Your task to perform on an android device: find snoozed emails in the gmail app Image 0: 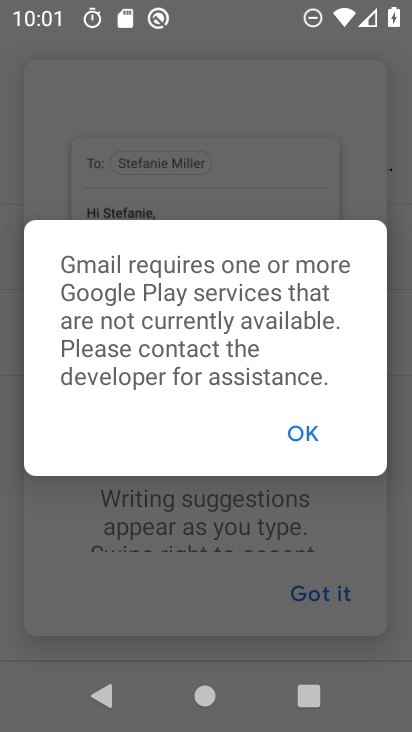
Step 0: press home button
Your task to perform on an android device: find snoozed emails in the gmail app Image 1: 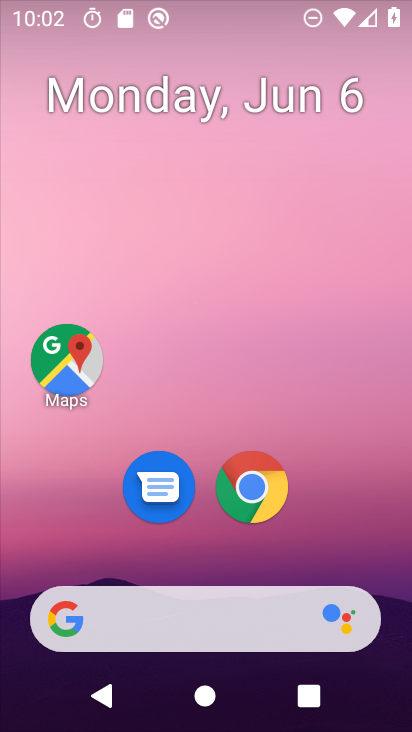
Step 1: drag from (394, 674) to (313, 23)
Your task to perform on an android device: find snoozed emails in the gmail app Image 2: 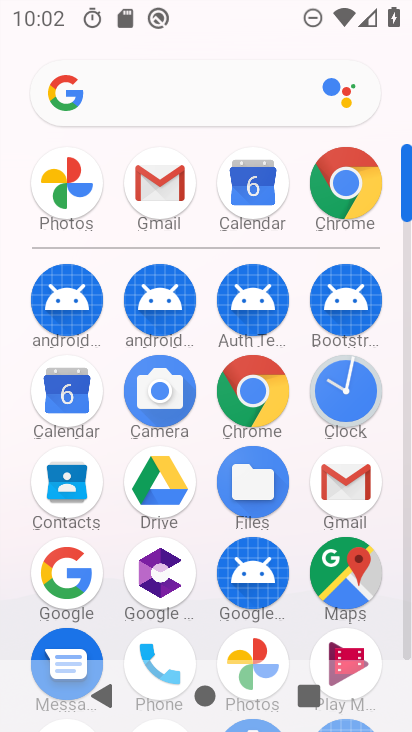
Step 2: click (323, 458)
Your task to perform on an android device: find snoozed emails in the gmail app Image 3: 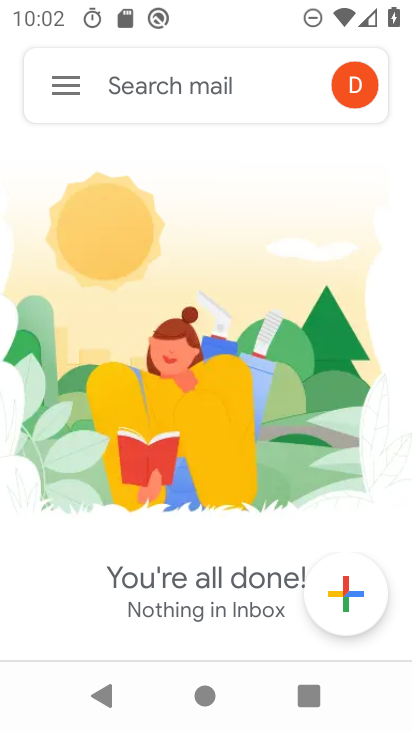
Step 3: click (64, 93)
Your task to perform on an android device: find snoozed emails in the gmail app Image 4: 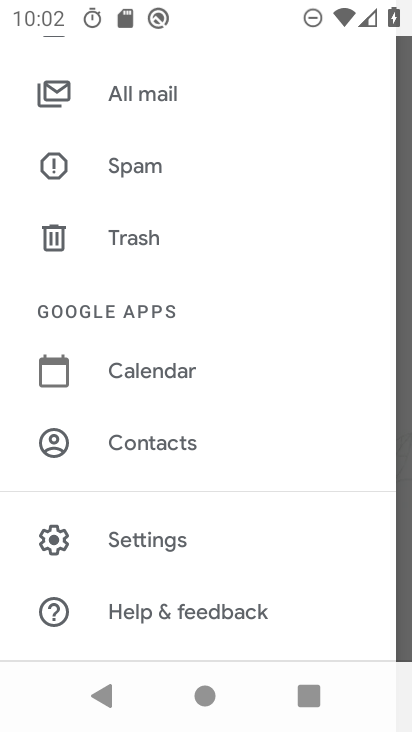
Step 4: drag from (149, 139) to (207, 599)
Your task to perform on an android device: find snoozed emails in the gmail app Image 5: 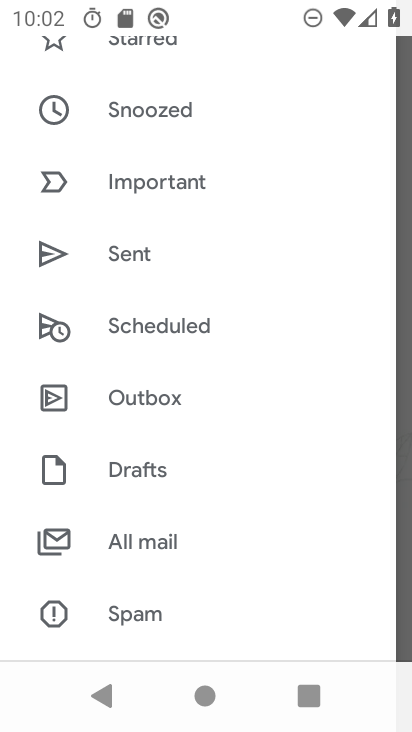
Step 5: click (182, 125)
Your task to perform on an android device: find snoozed emails in the gmail app Image 6: 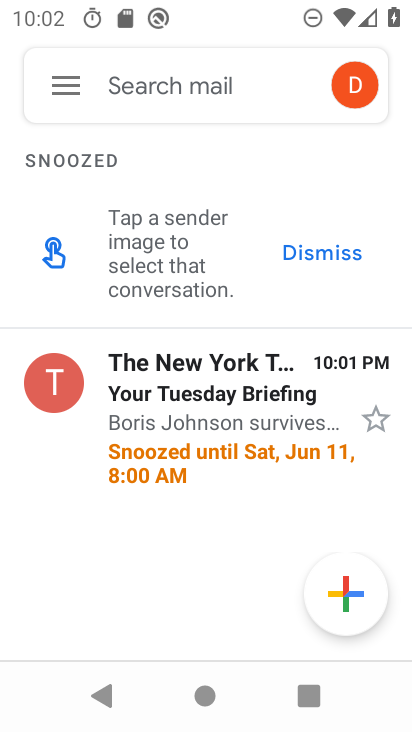
Step 6: task complete